Your task to perform on an android device: Check the weather Image 0: 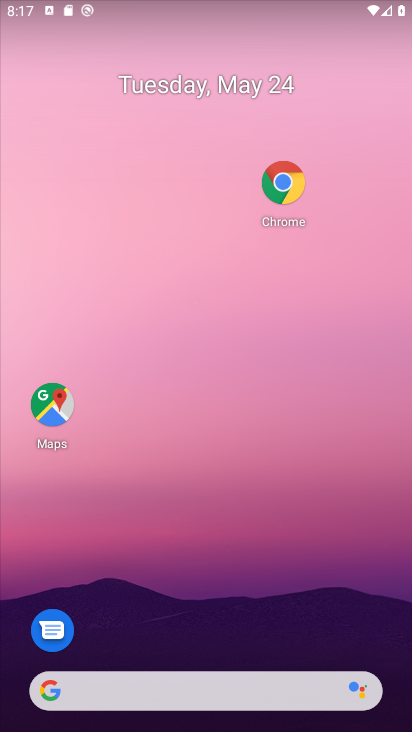
Step 0: press home button
Your task to perform on an android device: Check the weather Image 1: 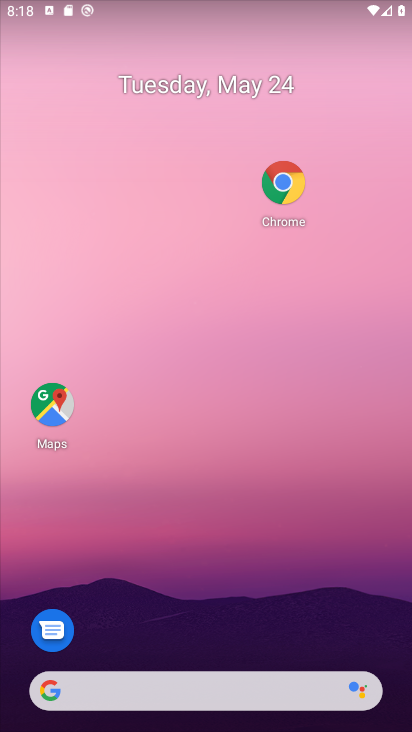
Step 1: drag from (287, 713) to (233, 314)
Your task to perform on an android device: Check the weather Image 2: 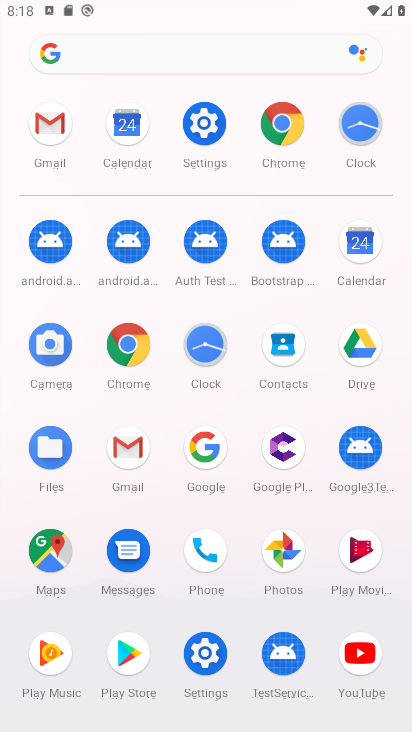
Step 2: click (138, 49)
Your task to perform on an android device: Check the weather Image 3: 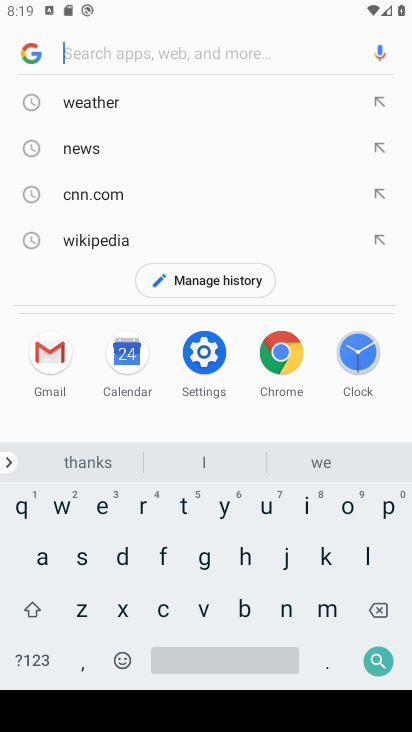
Step 3: click (122, 110)
Your task to perform on an android device: Check the weather Image 4: 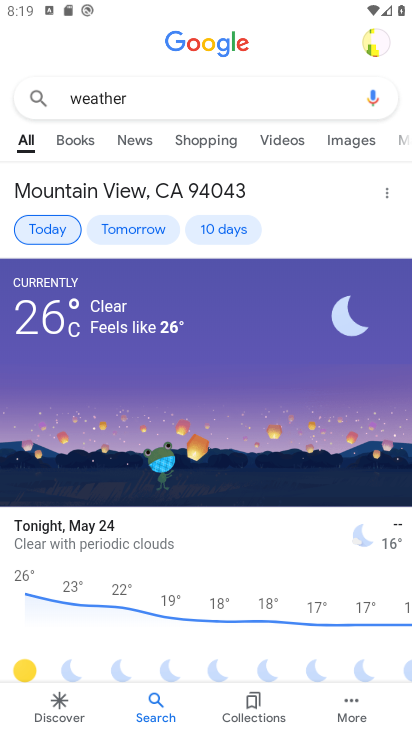
Step 4: task complete